Your task to perform on an android device: change notifications settings Image 0: 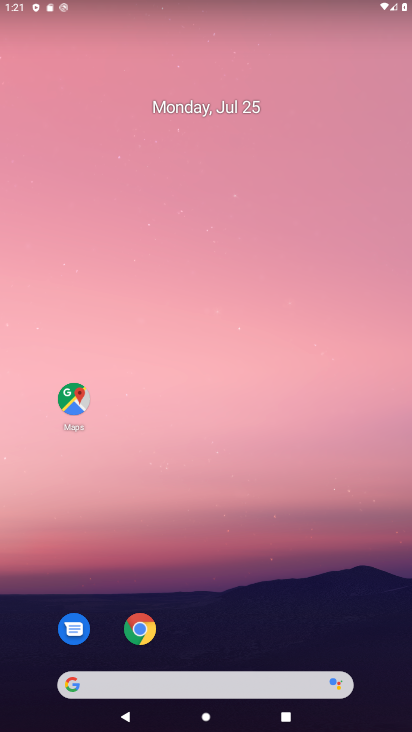
Step 0: drag from (203, 625) to (255, 178)
Your task to perform on an android device: change notifications settings Image 1: 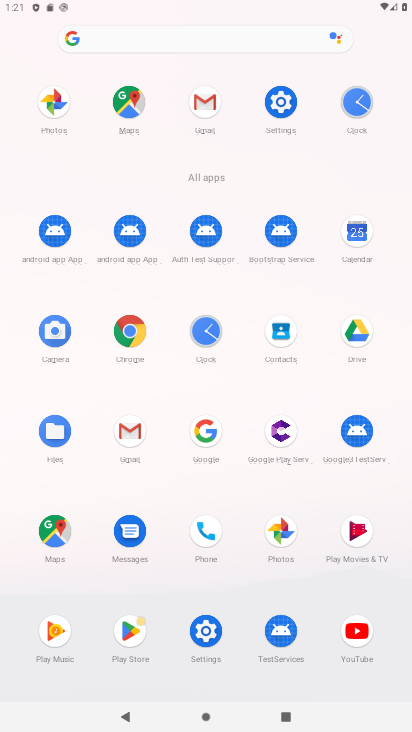
Step 1: click (205, 636)
Your task to perform on an android device: change notifications settings Image 2: 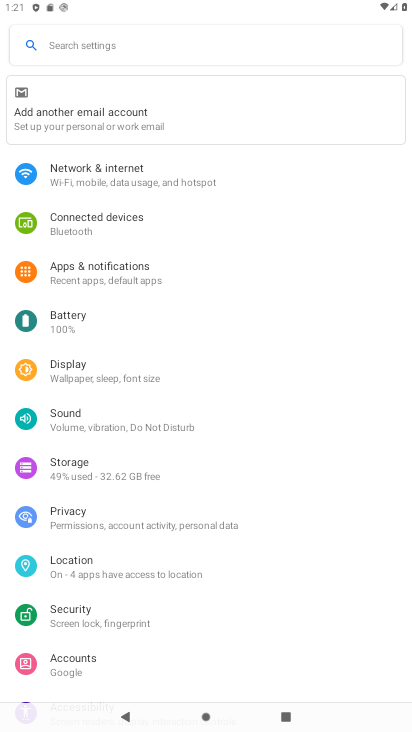
Step 2: click (118, 269)
Your task to perform on an android device: change notifications settings Image 3: 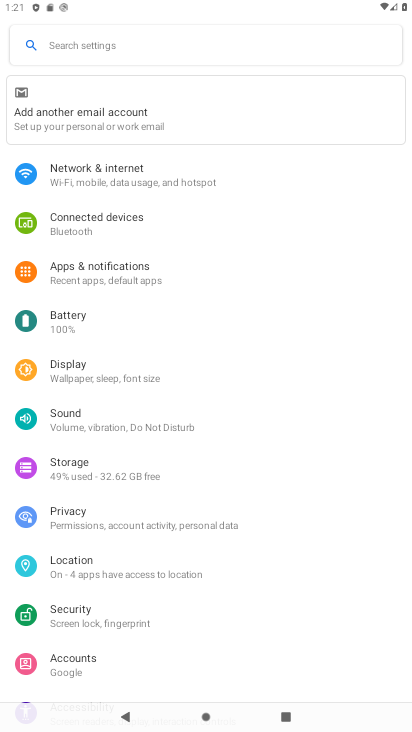
Step 3: click (118, 269)
Your task to perform on an android device: change notifications settings Image 4: 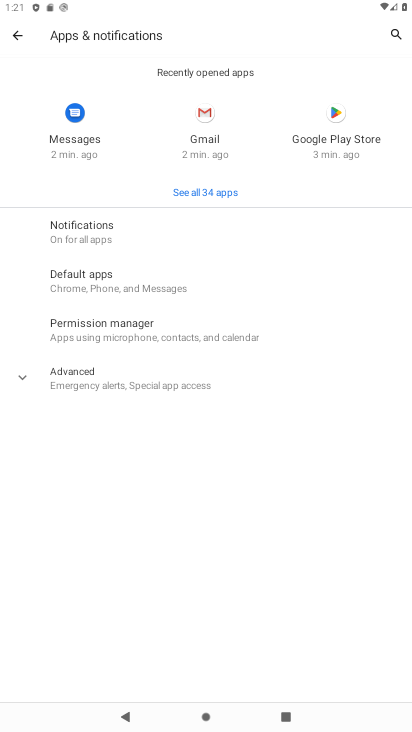
Step 4: click (90, 235)
Your task to perform on an android device: change notifications settings Image 5: 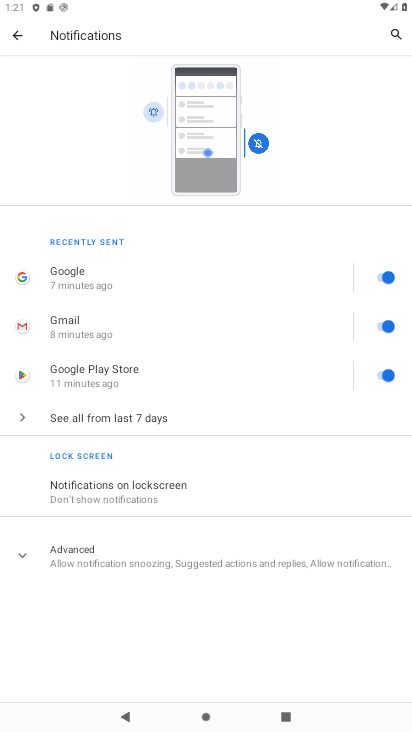
Step 5: task complete